Your task to perform on an android device: Turn off the flashlight Image 0: 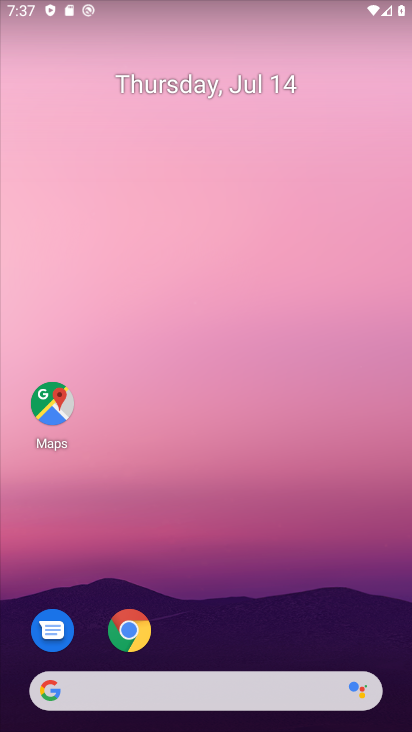
Step 0: drag from (259, 645) to (267, 271)
Your task to perform on an android device: Turn off the flashlight Image 1: 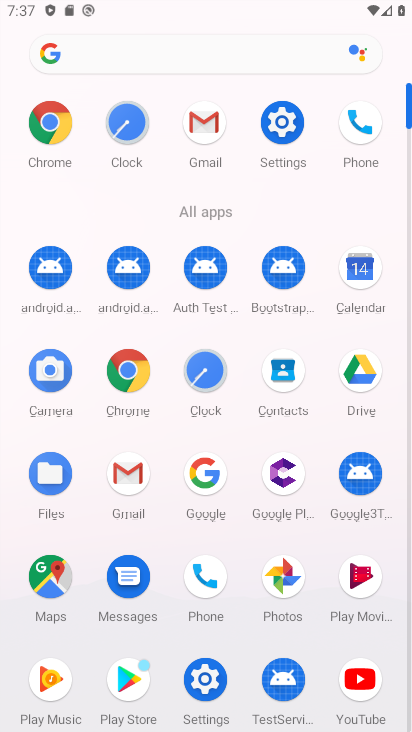
Step 1: click (278, 125)
Your task to perform on an android device: Turn off the flashlight Image 2: 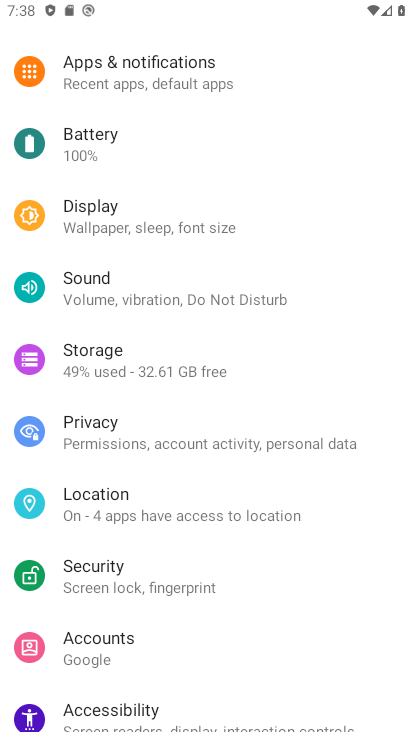
Step 2: task complete